Your task to perform on an android device: toggle show notifications on the lock screen Image 0: 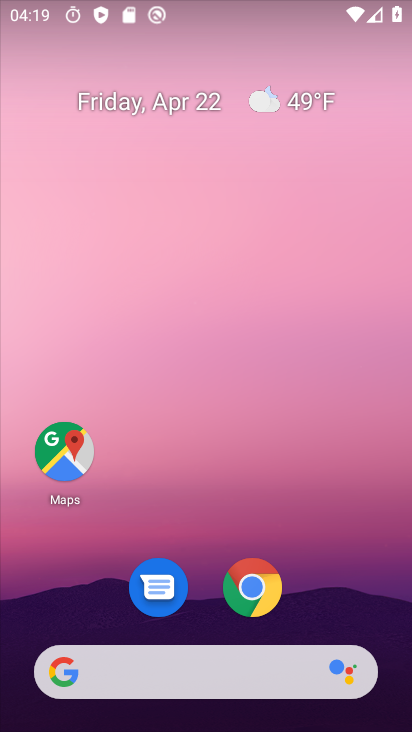
Step 0: drag from (369, 625) to (388, 88)
Your task to perform on an android device: toggle show notifications on the lock screen Image 1: 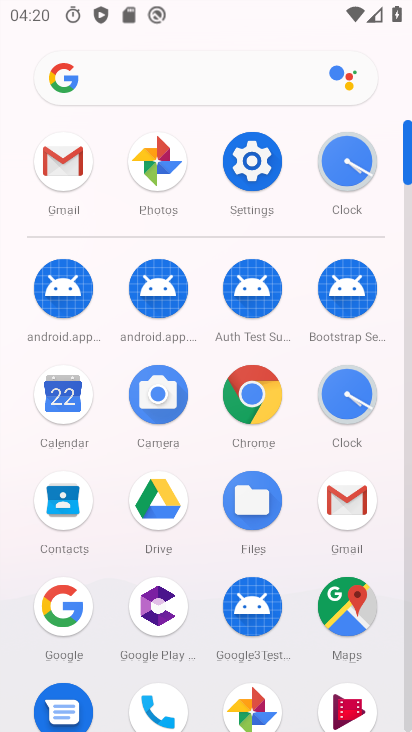
Step 1: click (257, 163)
Your task to perform on an android device: toggle show notifications on the lock screen Image 2: 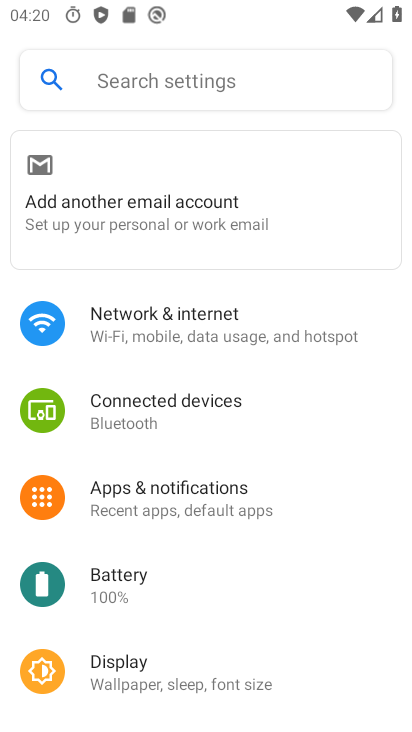
Step 2: click (179, 505)
Your task to perform on an android device: toggle show notifications on the lock screen Image 3: 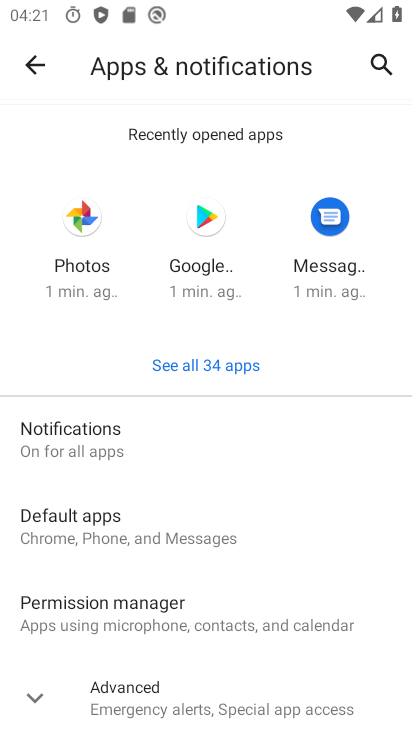
Step 3: click (49, 441)
Your task to perform on an android device: toggle show notifications on the lock screen Image 4: 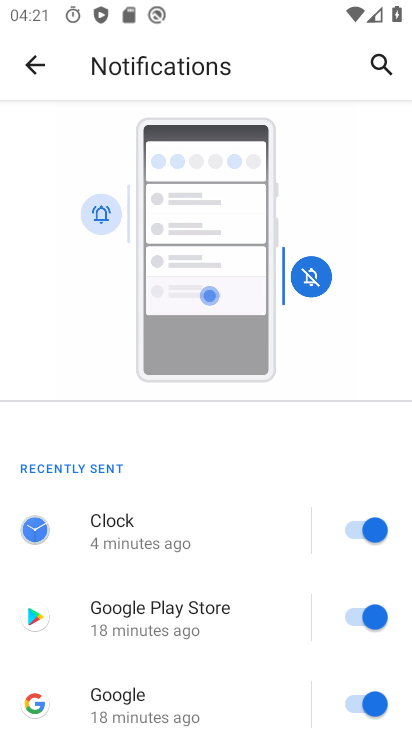
Step 4: drag from (171, 592) to (205, 177)
Your task to perform on an android device: toggle show notifications on the lock screen Image 5: 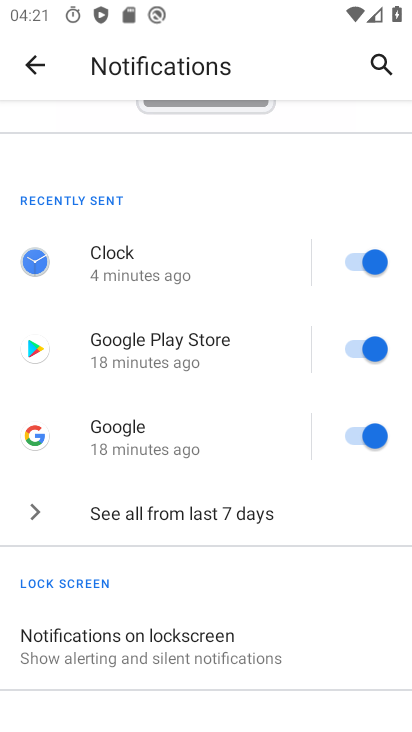
Step 5: drag from (143, 530) to (168, 232)
Your task to perform on an android device: toggle show notifications on the lock screen Image 6: 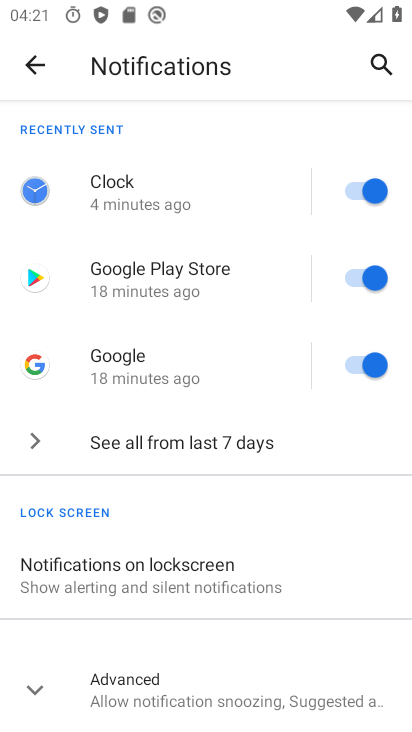
Step 6: click (68, 581)
Your task to perform on an android device: toggle show notifications on the lock screen Image 7: 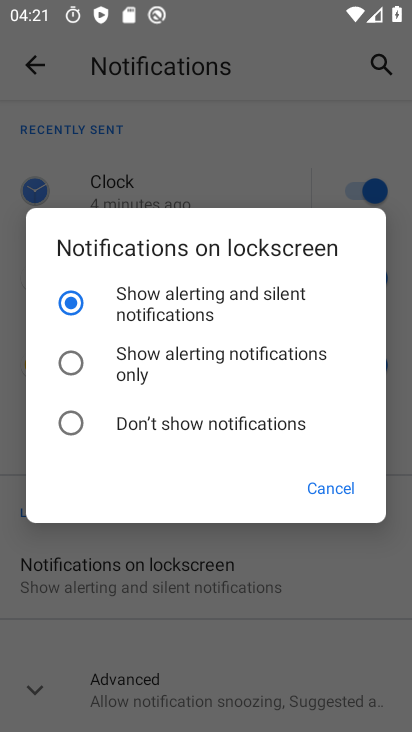
Step 7: click (62, 426)
Your task to perform on an android device: toggle show notifications on the lock screen Image 8: 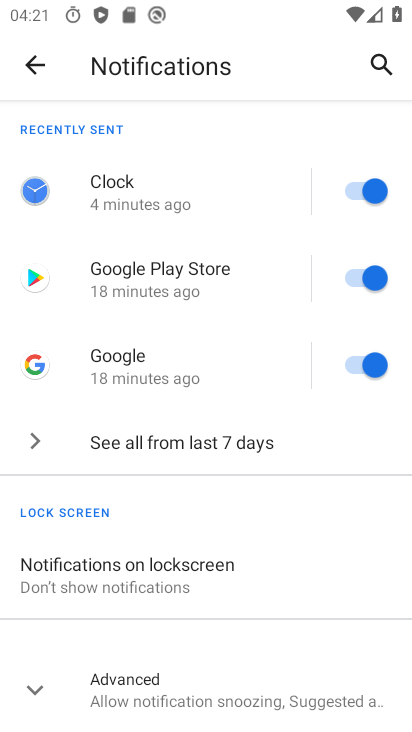
Step 8: task complete